Your task to perform on an android device: turn on javascript in the chrome app Image 0: 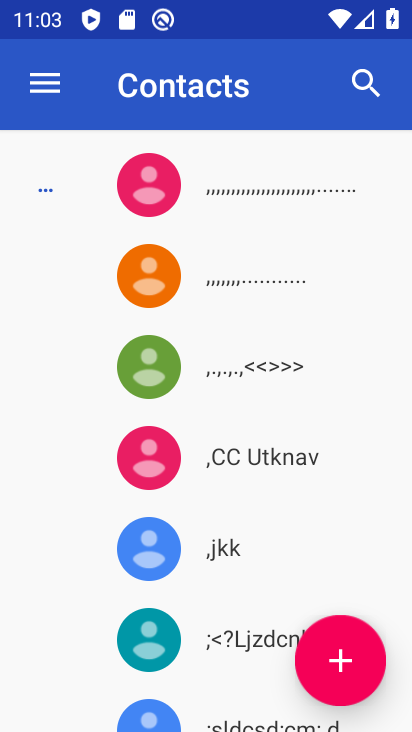
Step 0: press home button
Your task to perform on an android device: turn on javascript in the chrome app Image 1: 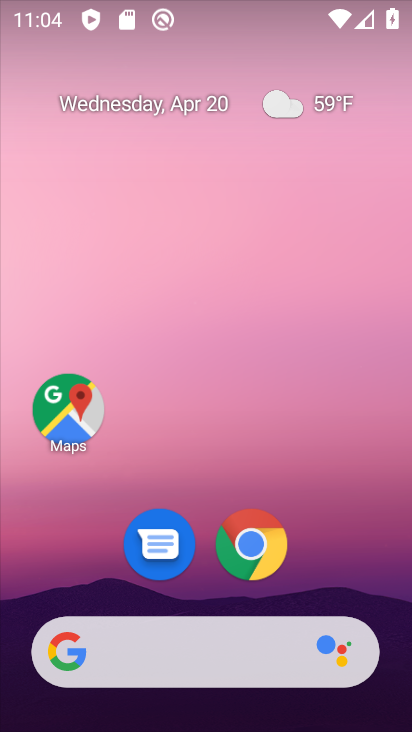
Step 1: click (252, 532)
Your task to perform on an android device: turn on javascript in the chrome app Image 2: 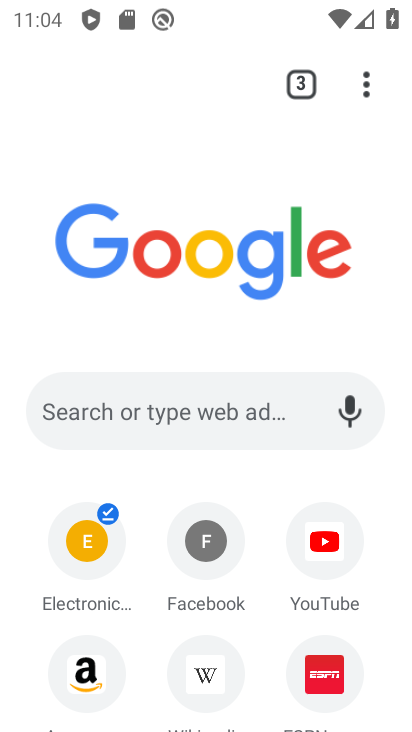
Step 2: click (366, 76)
Your task to perform on an android device: turn on javascript in the chrome app Image 3: 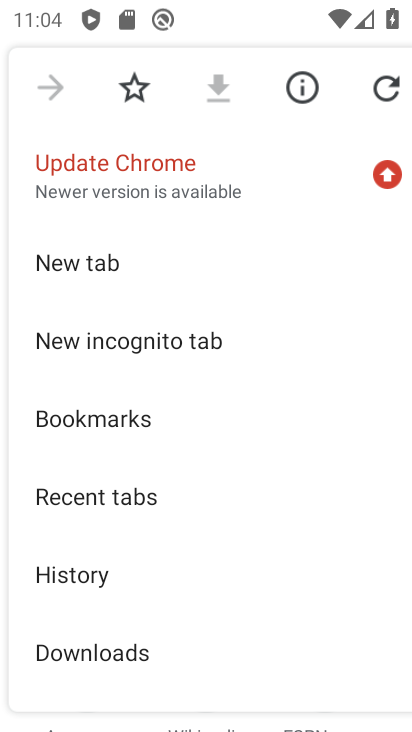
Step 3: drag from (190, 487) to (257, 87)
Your task to perform on an android device: turn on javascript in the chrome app Image 4: 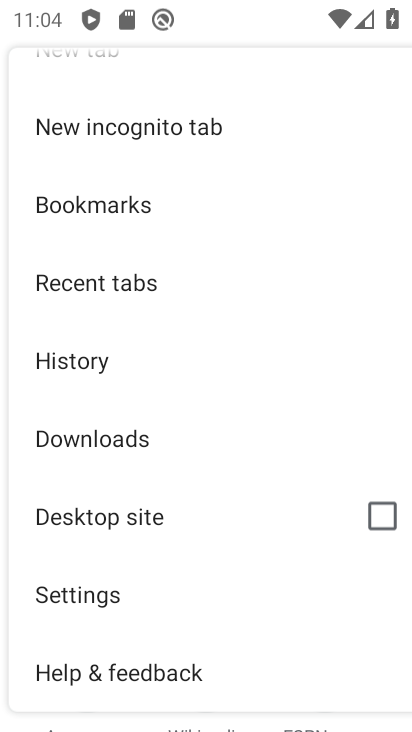
Step 4: click (165, 586)
Your task to perform on an android device: turn on javascript in the chrome app Image 5: 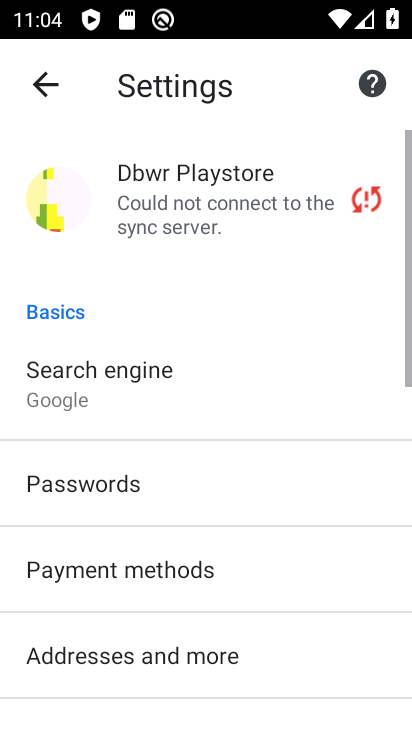
Step 5: drag from (161, 586) to (247, 93)
Your task to perform on an android device: turn on javascript in the chrome app Image 6: 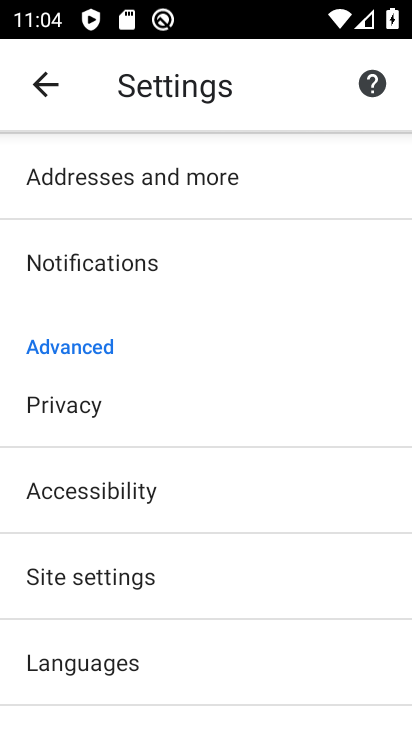
Step 6: drag from (257, 501) to (236, 272)
Your task to perform on an android device: turn on javascript in the chrome app Image 7: 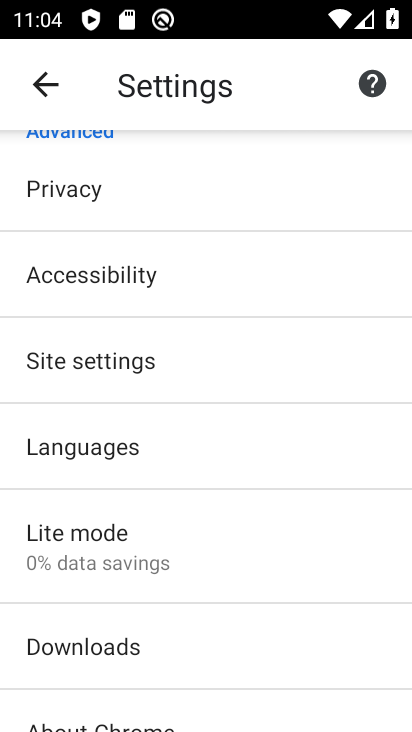
Step 7: drag from (258, 615) to (348, 227)
Your task to perform on an android device: turn on javascript in the chrome app Image 8: 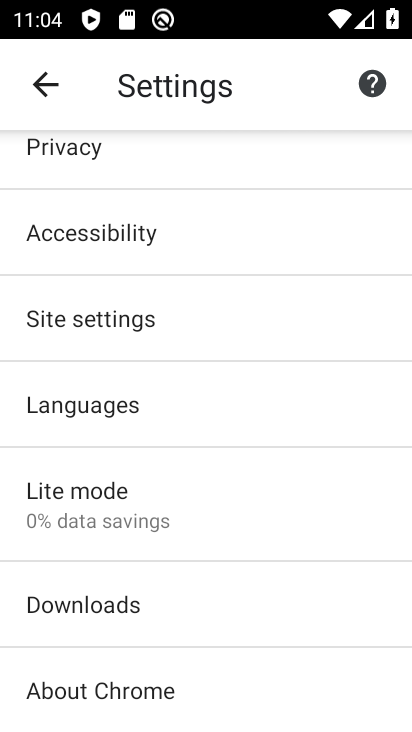
Step 8: drag from (355, 256) to (223, 602)
Your task to perform on an android device: turn on javascript in the chrome app Image 9: 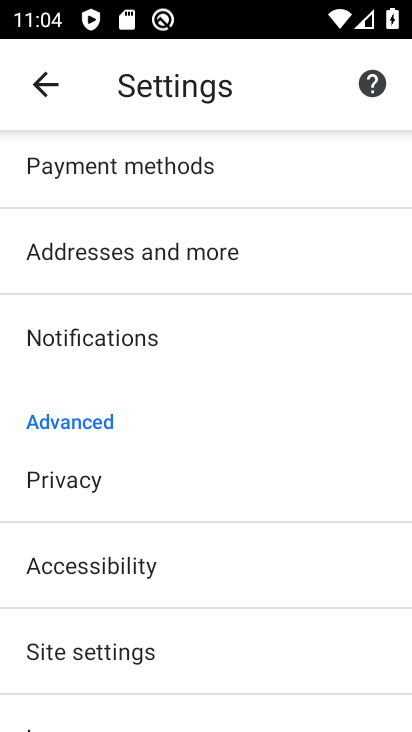
Step 9: click (122, 660)
Your task to perform on an android device: turn on javascript in the chrome app Image 10: 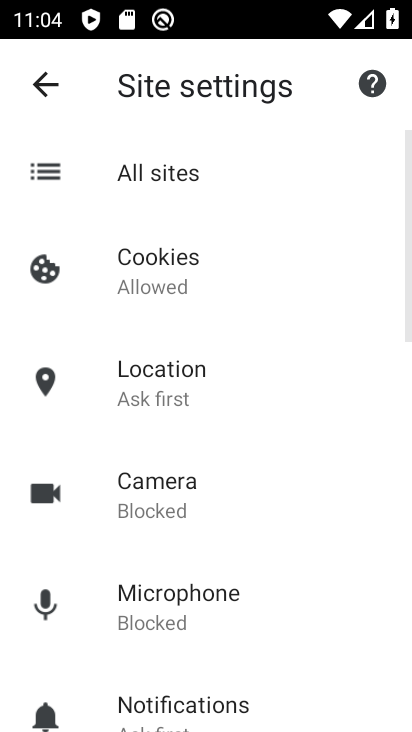
Step 10: drag from (248, 575) to (318, 231)
Your task to perform on an android device: turn on javascript in the chrome app Image 11: 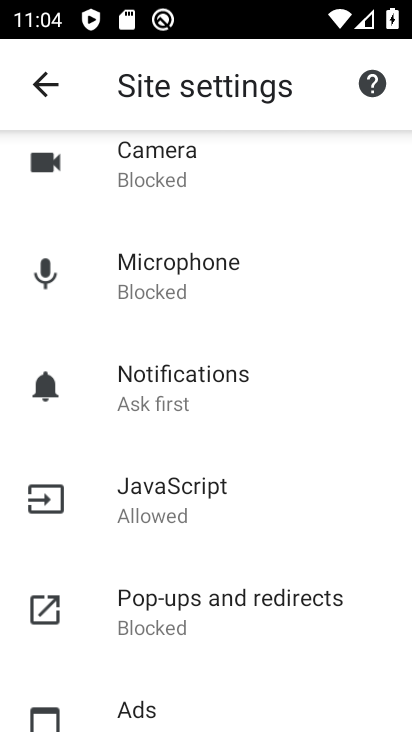
Step 11: click (174, 529)
Your task to perform on an android device: turn on javascript in the chrome app Image 12: 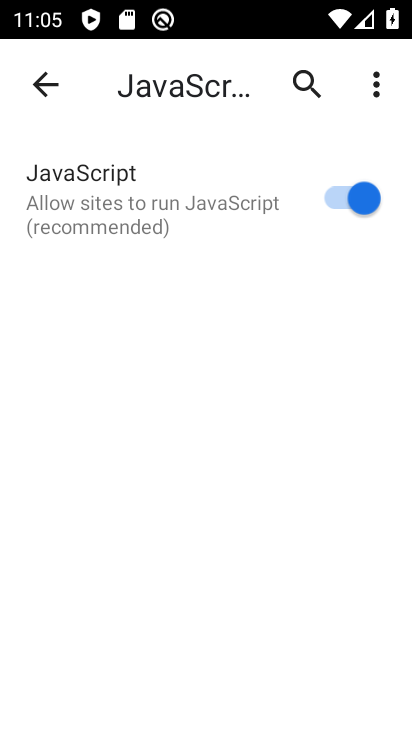
Step 12: task complete